Your task to perform on an android device: open chrome privacy settings Image 0: 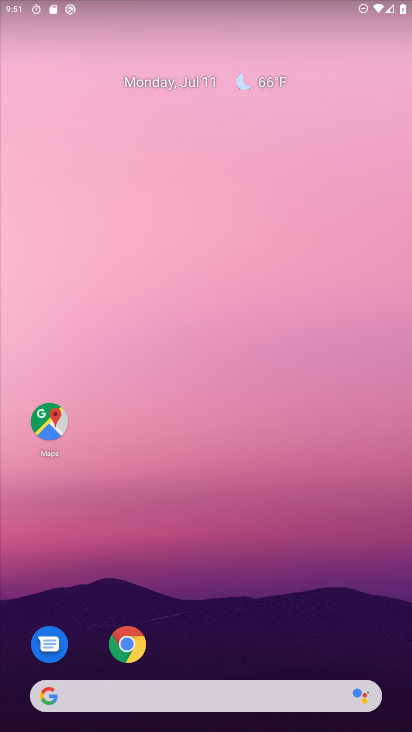
Step 0: click (131, 640)
Your task to perform on an android device: open chrome privacy settings Image 1: 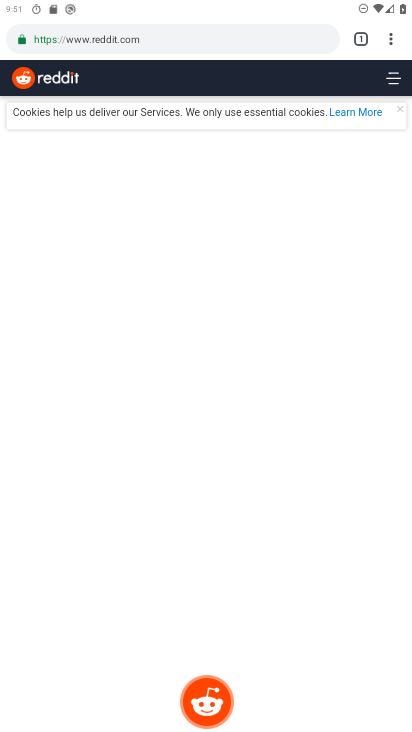
Step 1: drag from (394, 35) to (262, 509)
Your task to perform on an android device: open chrome privacy settings Image 2: 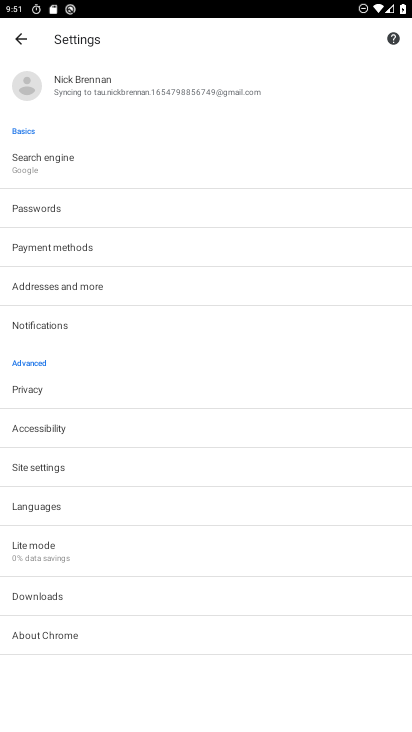
Step 2: click (27, 384)
Your task to perform on an android device: open chrome privacy settings Image 3: 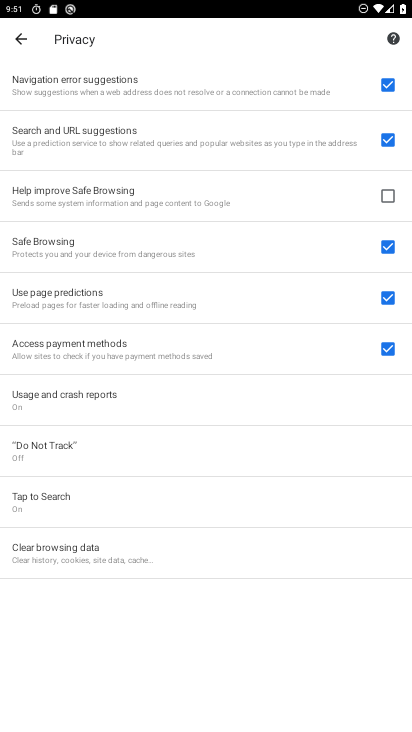
Step 3: task complete